Your task to perform on an android device: uninstall "Google News" Image 0: 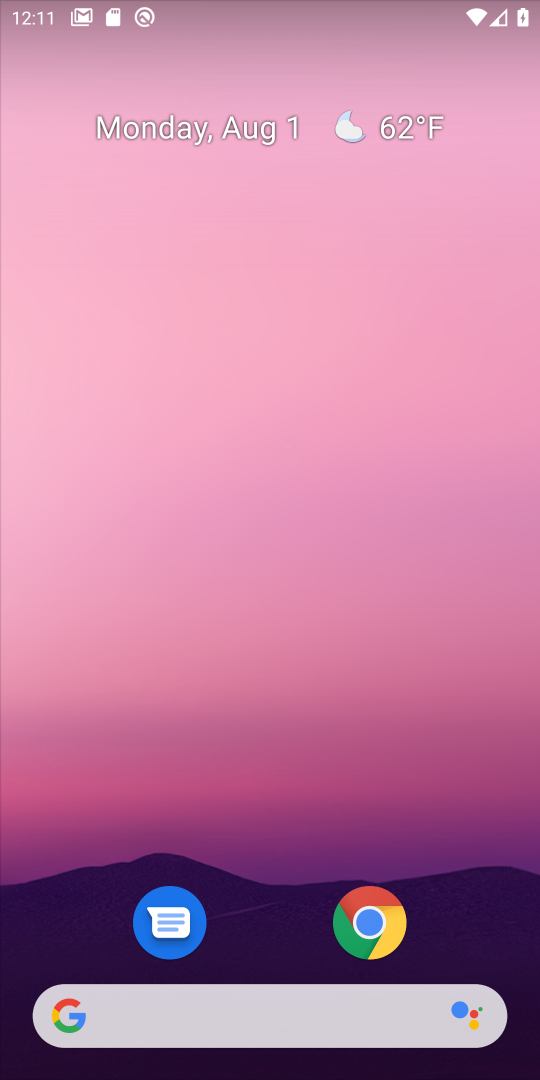
Step 0: drag from (273, 904) to (320, 299)
Your task to perform on an android device: uninstall "Google News" Image 1: 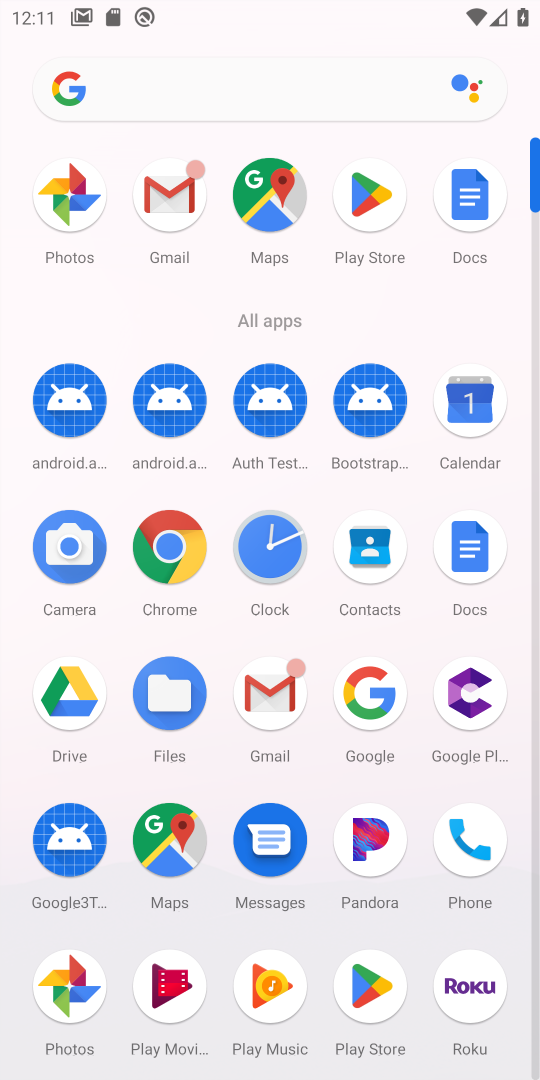
Step 1: click (365, 198)
Your task to perform on an android device: uninstall "Google News" Image 2: 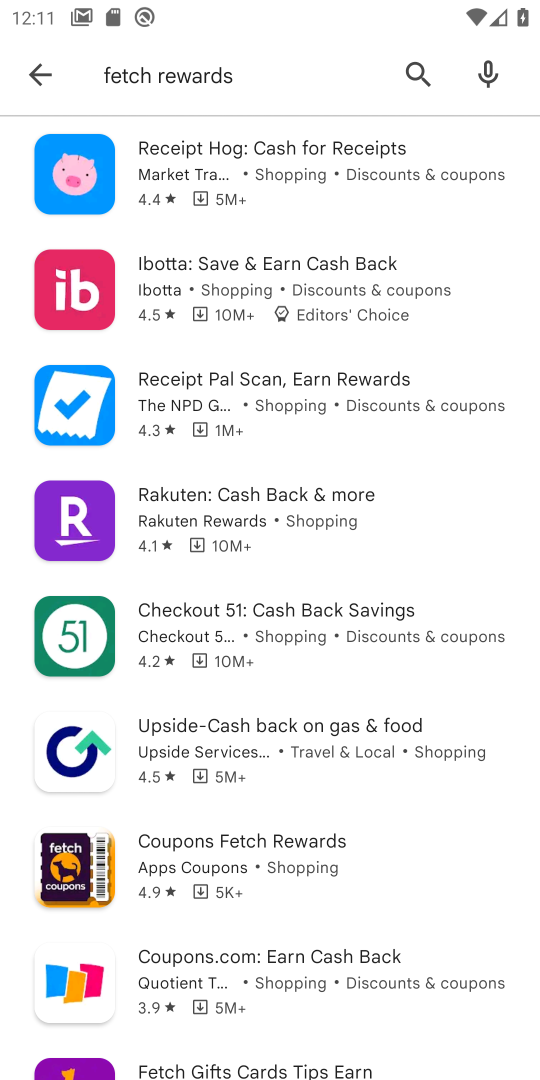
Step 2: click (425, 76)
Your task to perform on an android device: uninstall "Google News" Image 3: 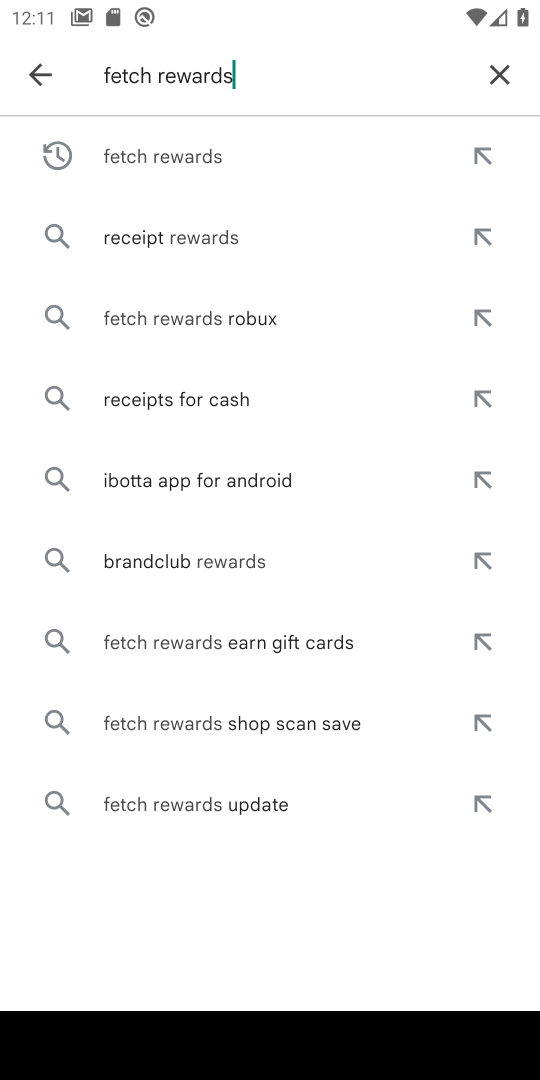
Step 3: click (498, 73)
Your task to perform on an android device: uninstall "Google News" Image 4: 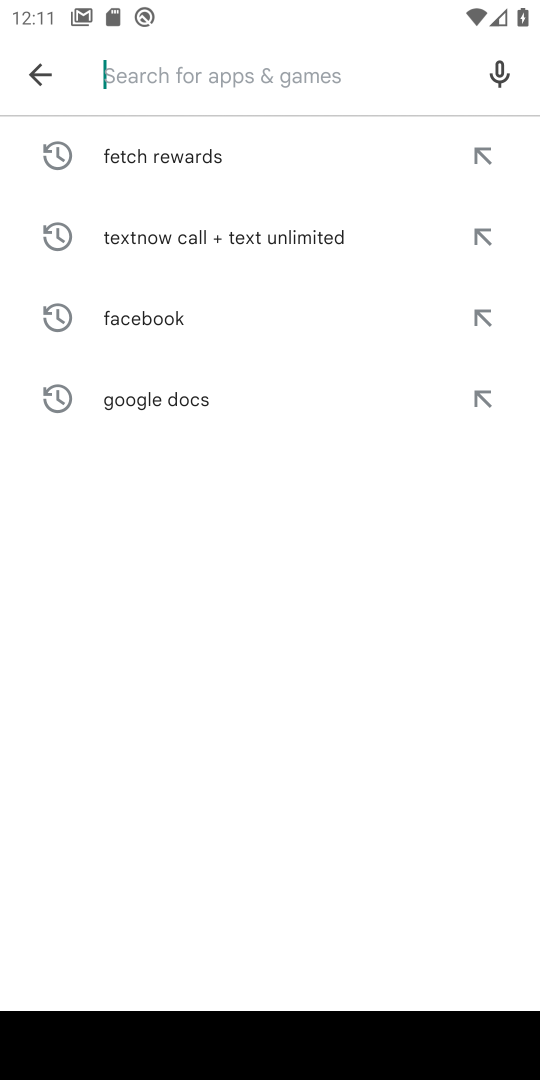
Step 4: type "Google News"
Your task to perform on an android device: uninstall "Google News" Image 5: 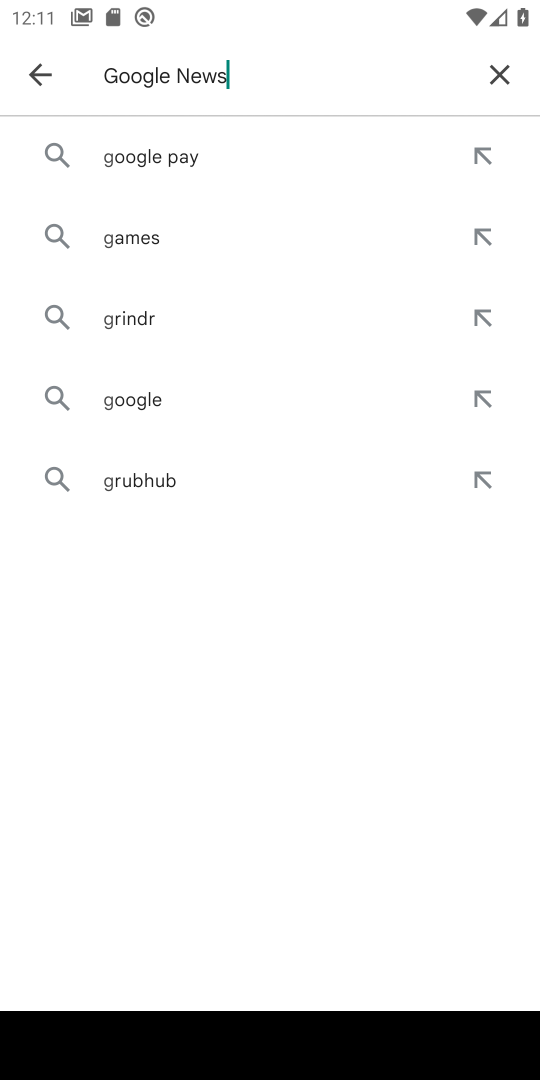
Step 5: type ""
Your task to perform on an android device: uninstall "Google News" Image 6: 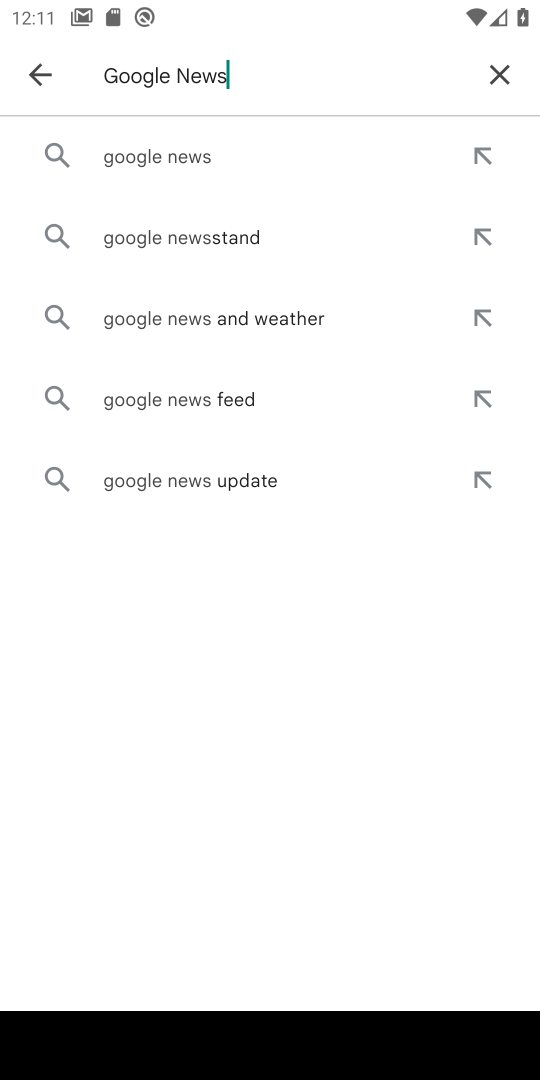
Step 6: click (202, 159)
Your task to perform on an android device: uninstall "Google News" Image 7: 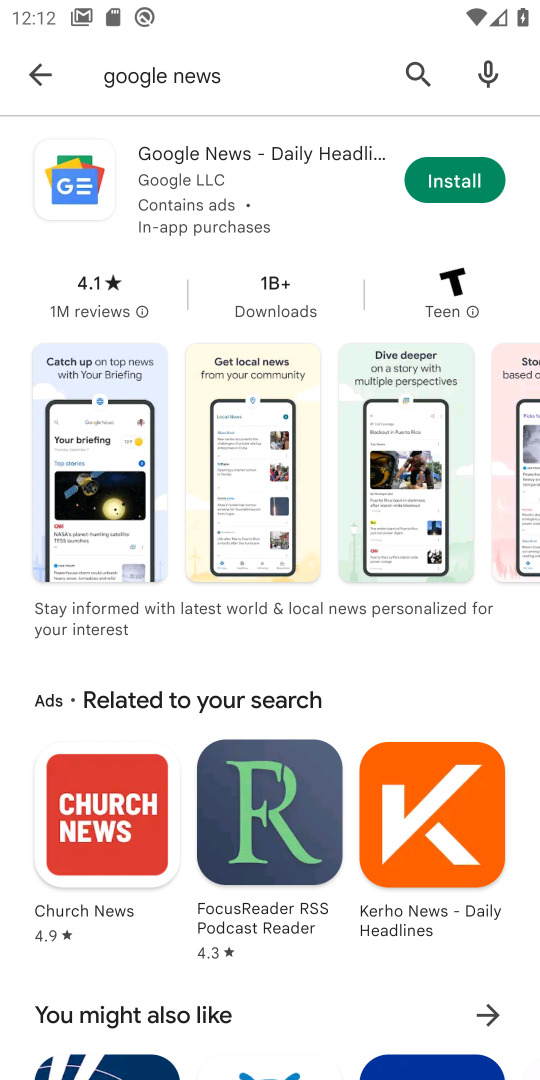
Step 7: task complete